Your task to perform on an android device: open app "AliExpress" Image 0: 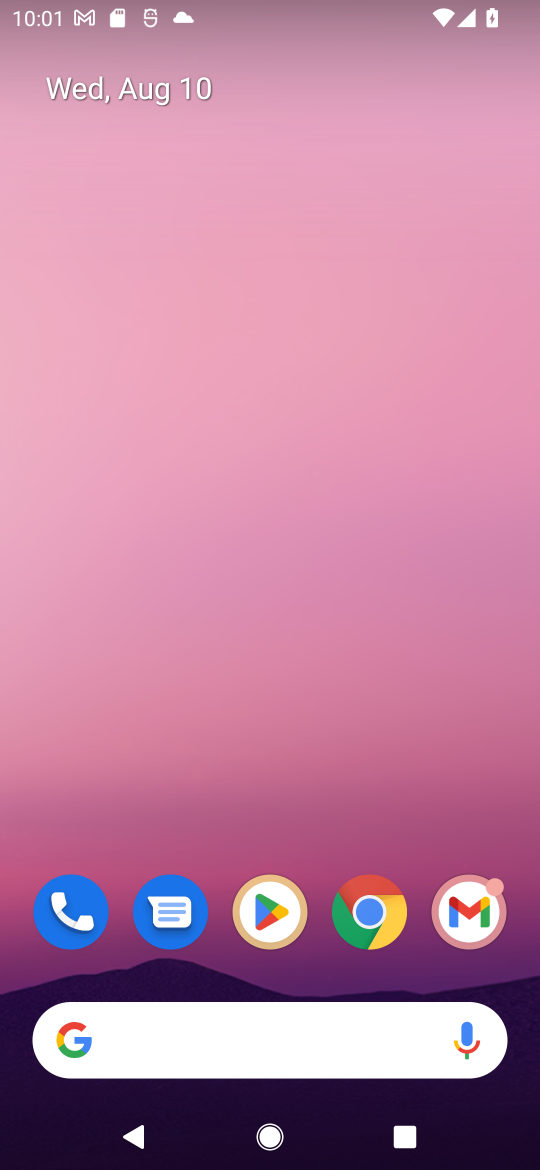
Step 0: drag from (529, 989) to (202, 36)
Your task to perform on an android device: open app "AliExpress" Image 1: 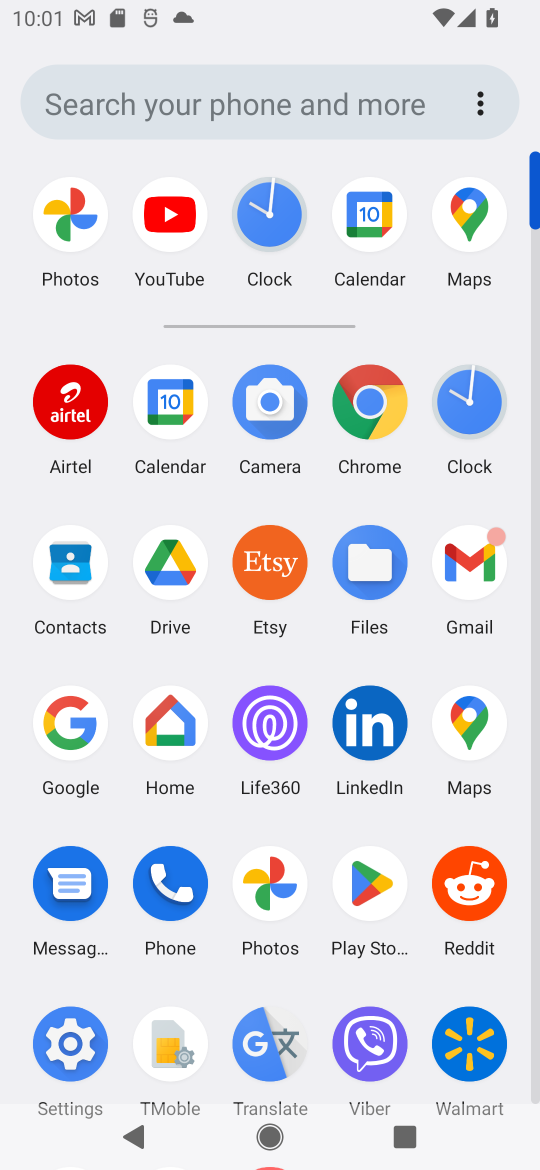
Step 1: click (361, 886)
Your task to perform on an android device: open app "AliExpress" Image 2: 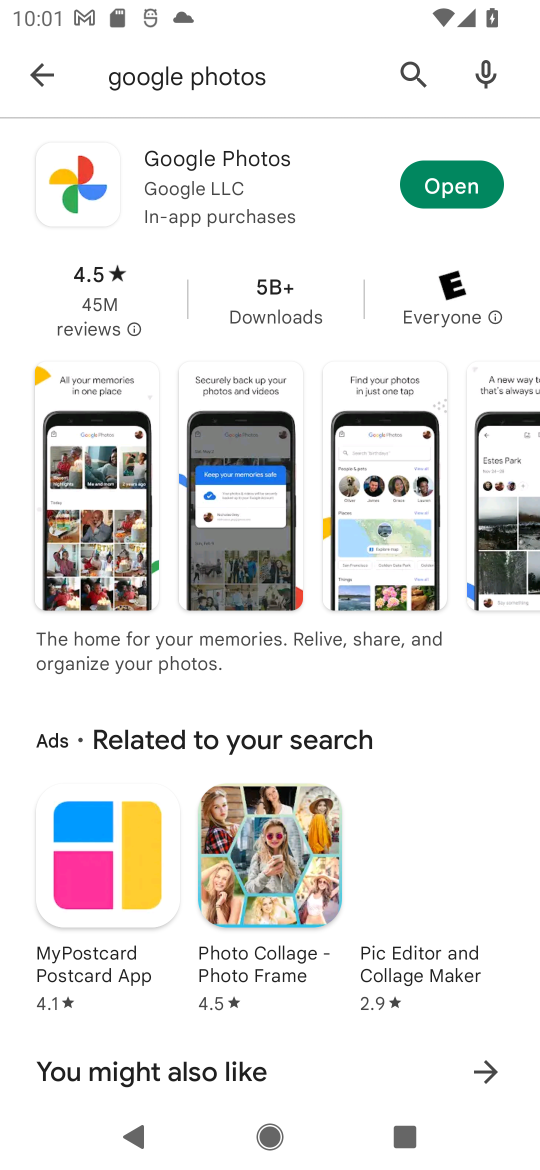
Step 2: press back button
Your task to perform on an android device: open app "AliExpress" Image 3: 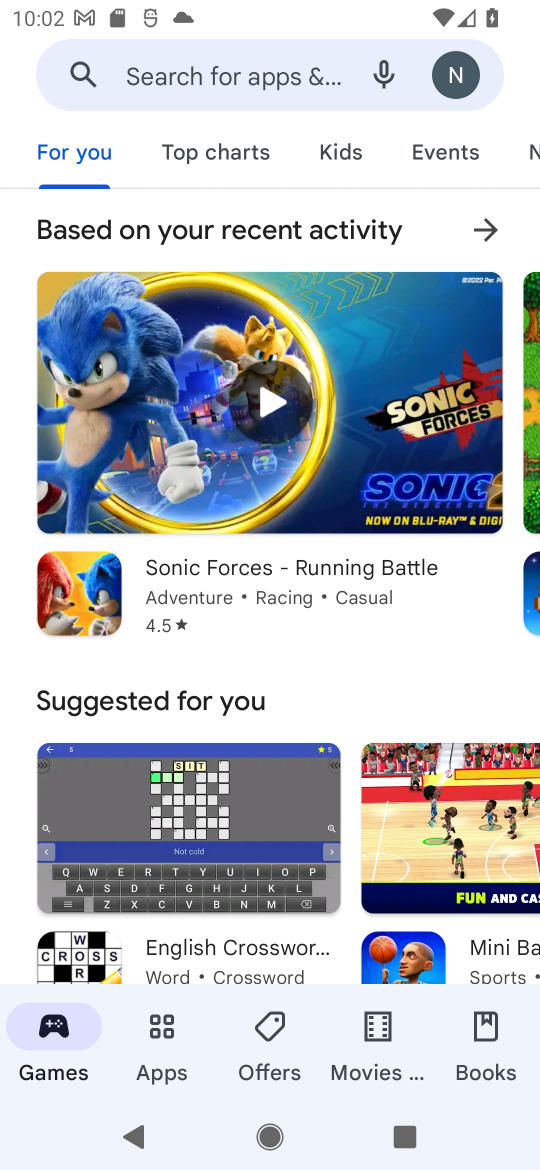
Step 3: click (197, 74)
Your task to perform on an android device: open app "AliExpress" Image 4: 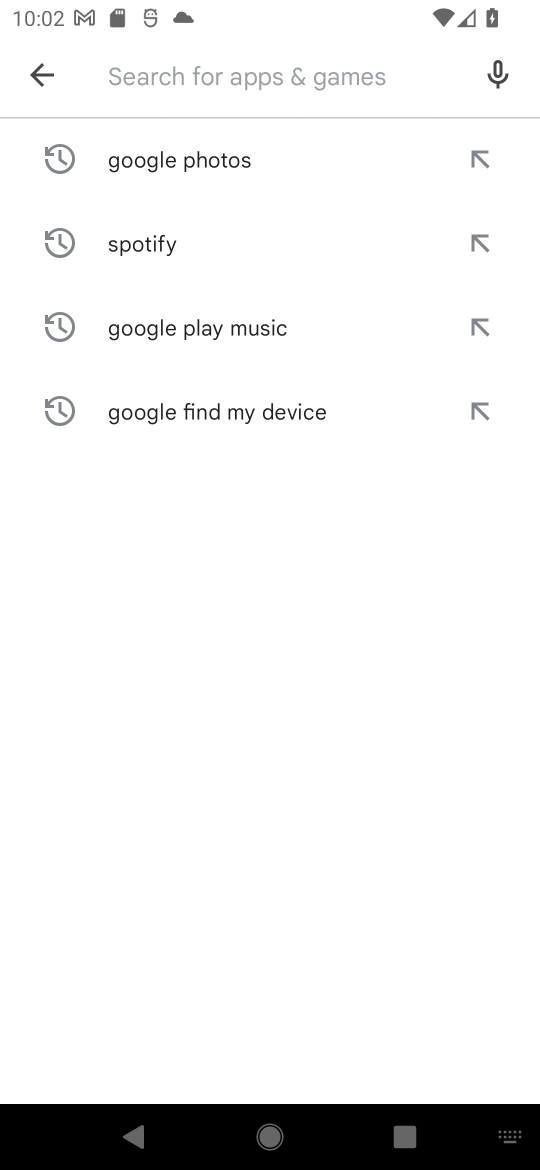
Step 4: type "AliExpress"
Your task to perform on an android device: open app "AliExpress" Image 5: 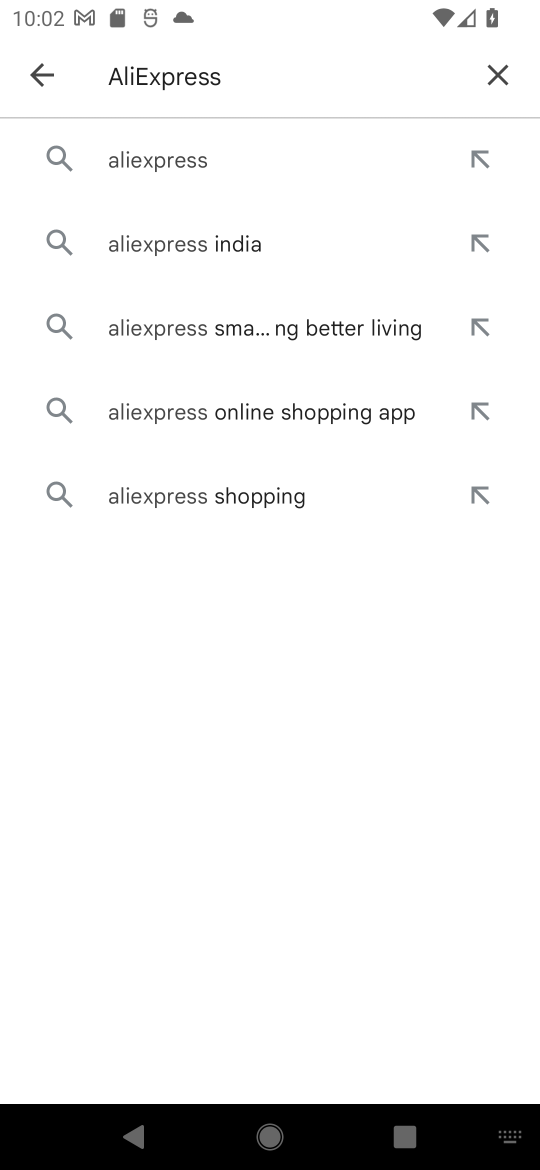
Step 5: click (186, 178)
Your task to perform on an android device: open app "AliExpress" Image 6: 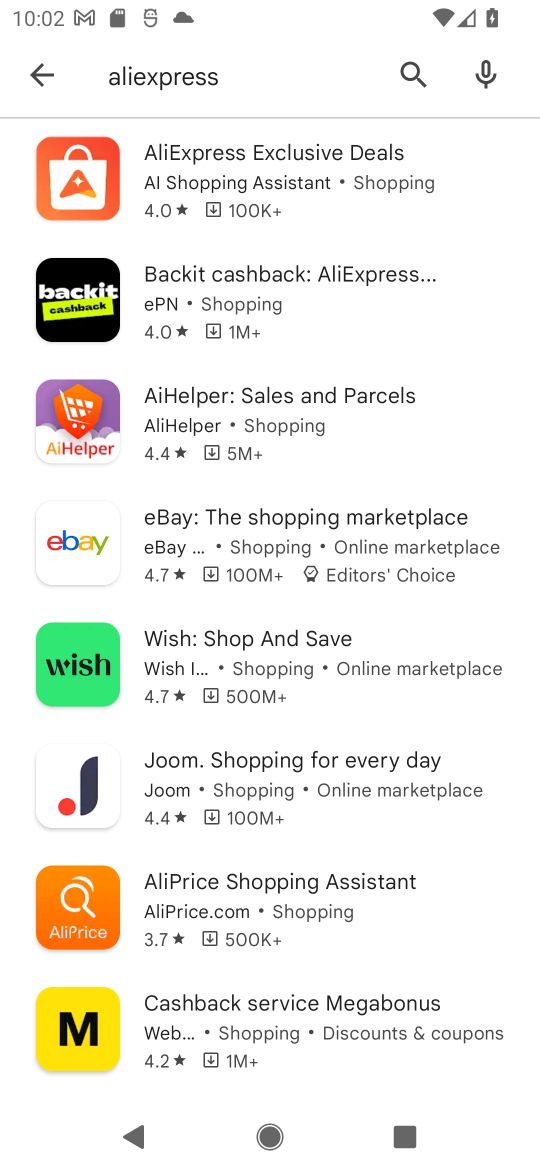
Step 6: task complete